Your task to perform on an android device: Search for dell alienware on target.com, select the first entry, add it to the cart, then select checkout. Image 0: 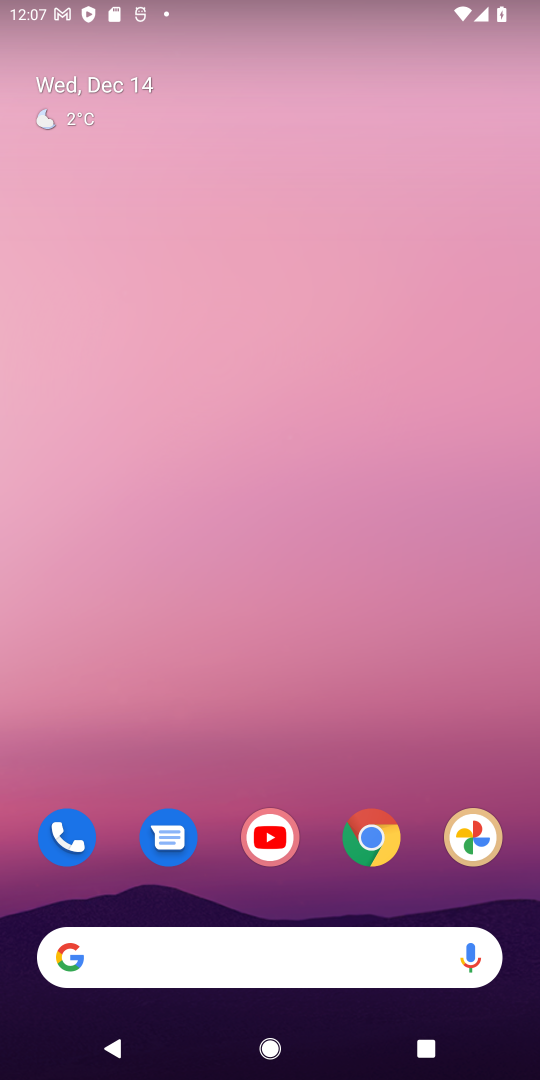
Step 0: click (399, 963)
Your task to perform on an android device: Search for dell alienware on target.com, select the first entry, add it to the cart, then select checkout. Image 1: 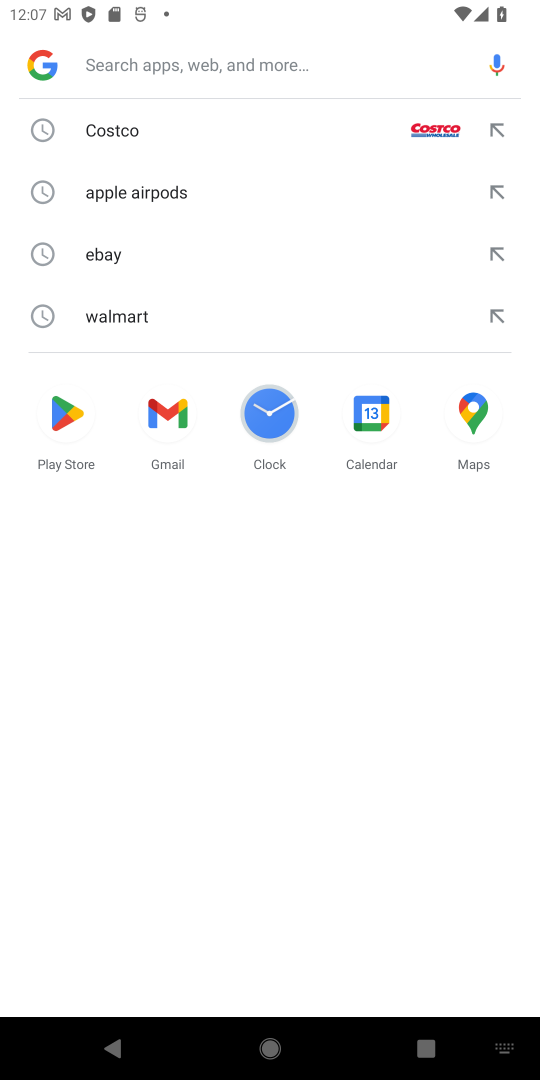
Step 1: type "target"
Your task to perform on an android device: Search for dell alienware on target.com, select the first entry, add it to the cart, then select checkout. Image 2: 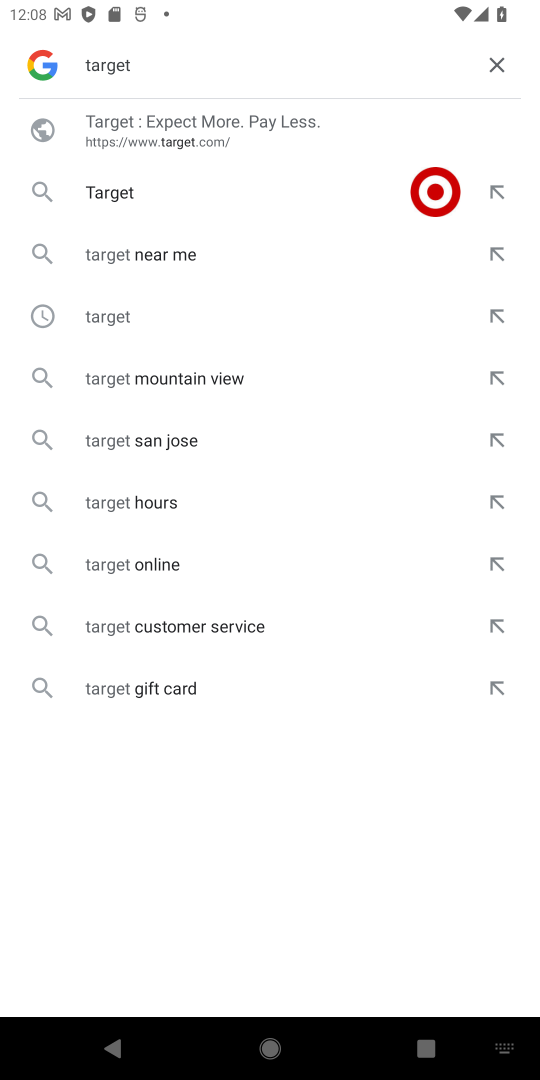
Step 2: click (85, 206)
Your task to perform on an android device: Search for dell alienware on target.com, select the first entry, add it to the cart, then select checkout. Image 3: 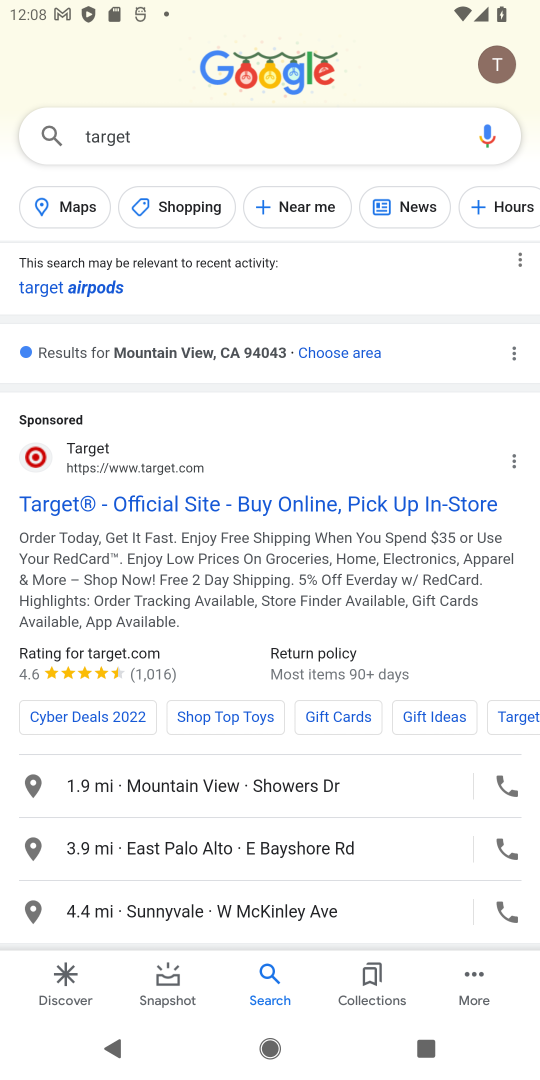
Step 3: click (124, 462)
Your task to perform on an android device: Search for dell alienware on target.com, select the first entry, add it to the cart, then select checkout. Image 4: 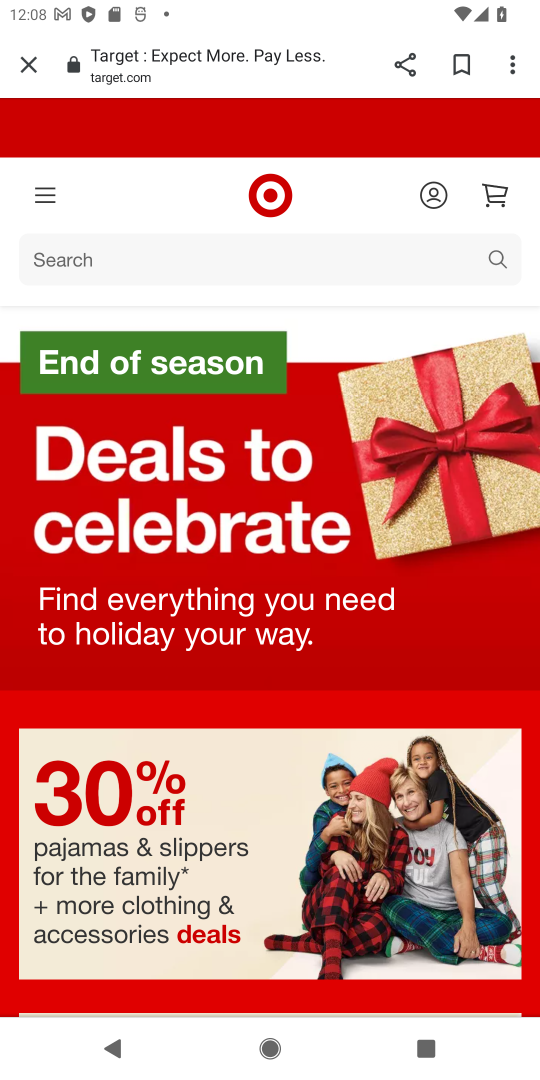
Step 4: click (182, 265)
Your task to perform on an android device: Search for dell alienware on target.com, select the first entry, add it to the cart, then select checkout. Image 5: 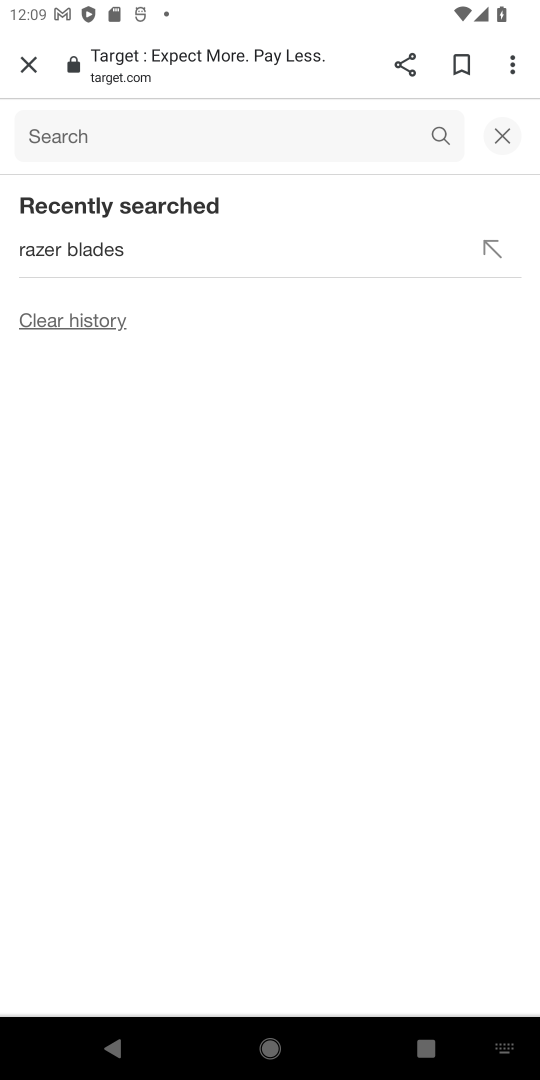
Step 5: type "dell alienwear"
Your task to perform on an android device: Search for dell alienware on target.com, select the first entry, add it to the cart, then select checkout. Image 6: 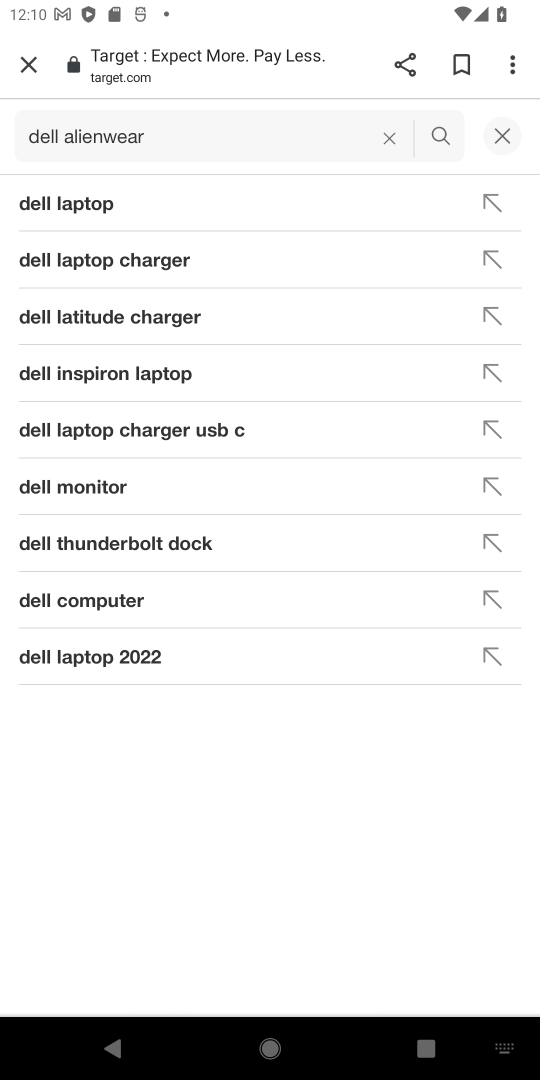
Step 6: click (428, 143)
Your task to perform on an android device: Search for dell alienware on target.com, select the first entry, add it to the cart, then select checkout. Image 7: 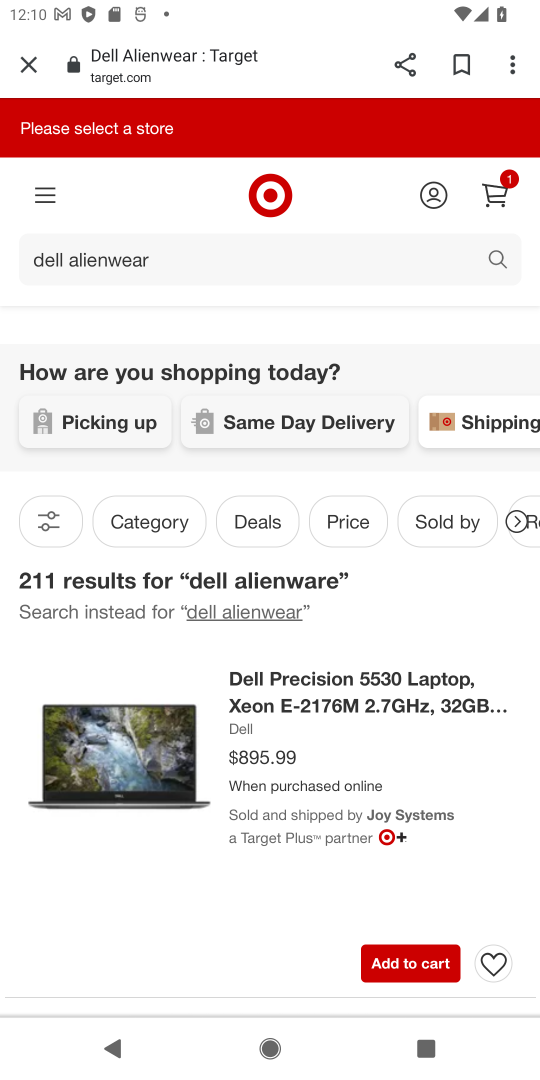
Step 7: click (399, 973)
Your task to perform on an android device: Search for dell alienware on target.com, select the first entry, add it to the cart, then select checkout. Image 8: 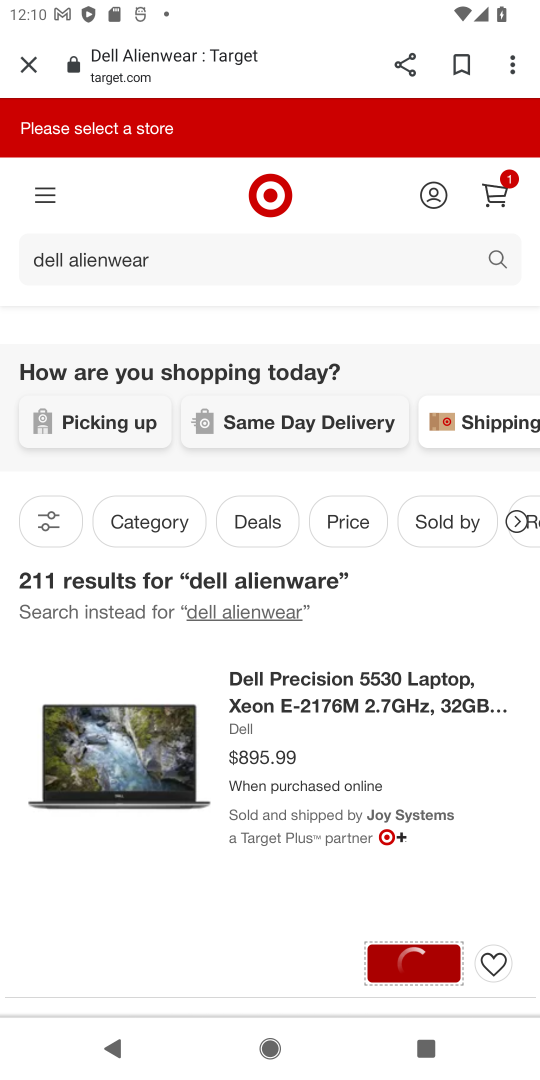
Step 8: task complete